Your task to perform on an android device: Open the phone app and click the voicemail tab. Image 0: 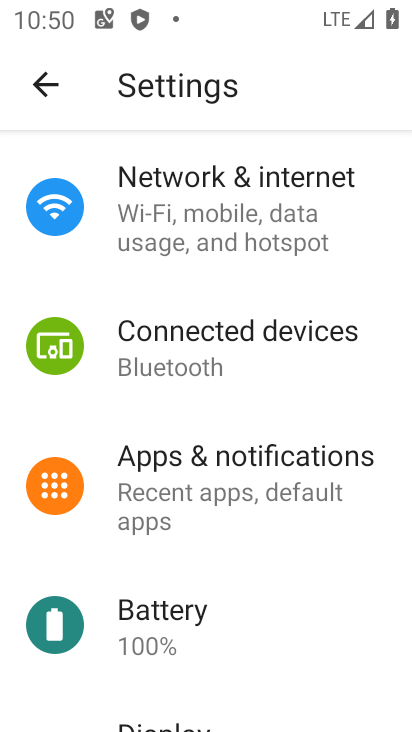
Step 0: press home button
Your task to perform on an android device: Open the phone app and click the voicemail tab. Image 1: 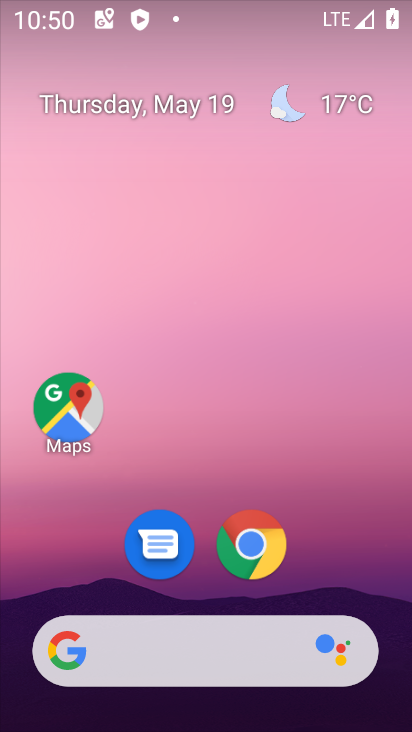
Step 1: drag from (248, 723) to (248, 239)
Your task to perform on an android device: Open the phone app and click the voicemail tab. Image 2: 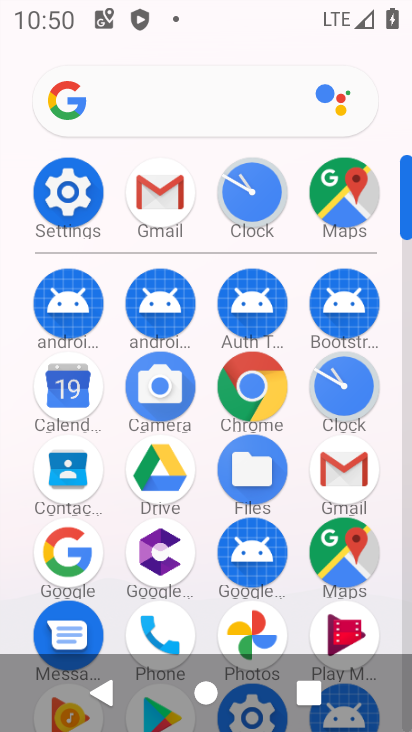
Step 2: click (139, 615)
Your task to perform on an android device: Open the phone app and click the voicemail tab. Image 3: 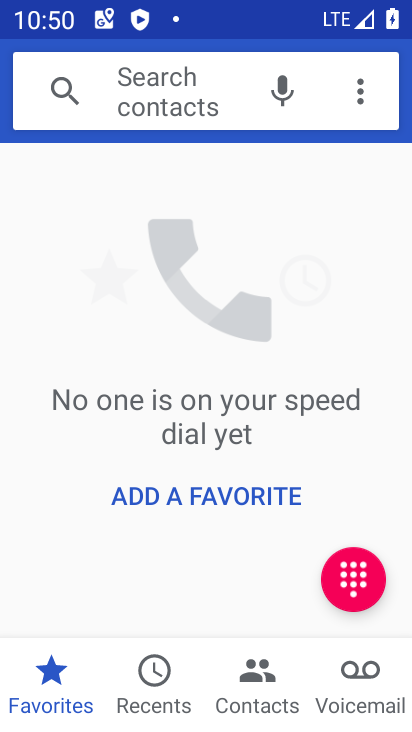
Step 3: click (367, 681)
Your task to perform on an android device: Open the phone app and click the voicemail tab. Image 4: 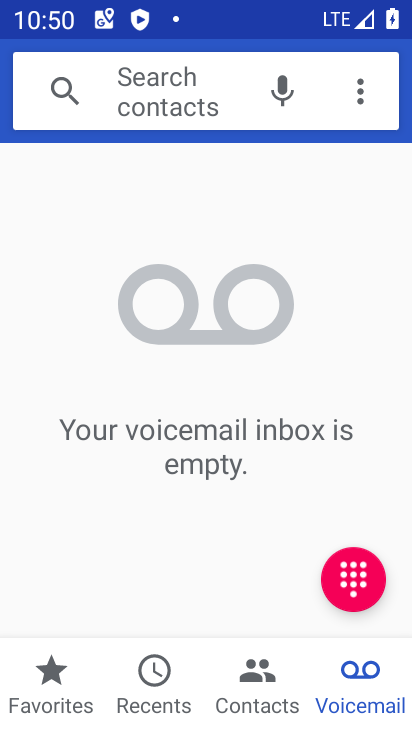
Step 4: task complete